Your task to perform on an android device: check storage Image 0: 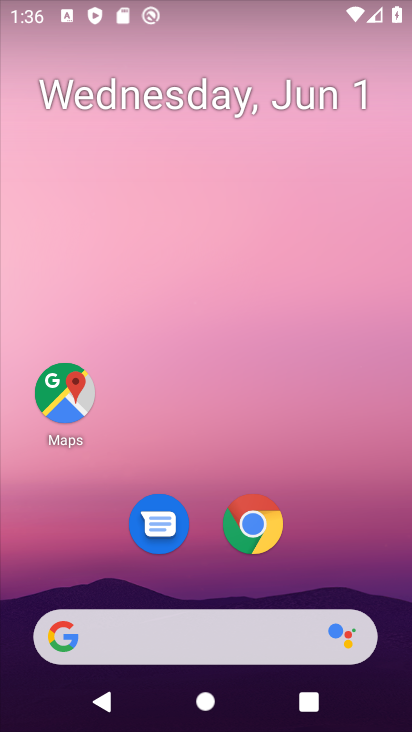
Step 0: drag from (311, 531) to (305, 70)
Your task to perform on an android device: check storage Image 1: 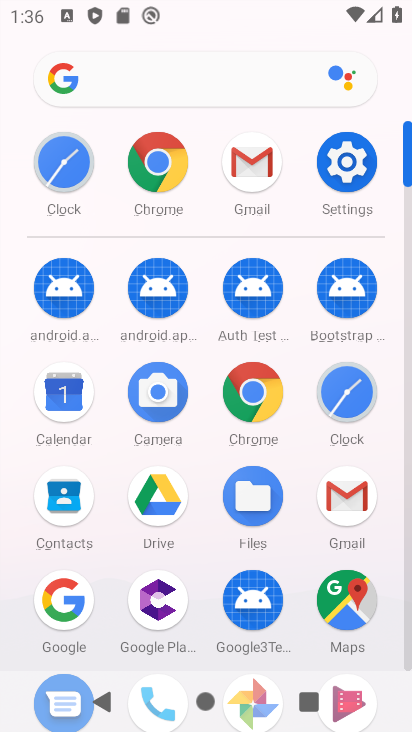
Step 1: click (347, 155)
Your task to perform on an android device: check storage Image 2: 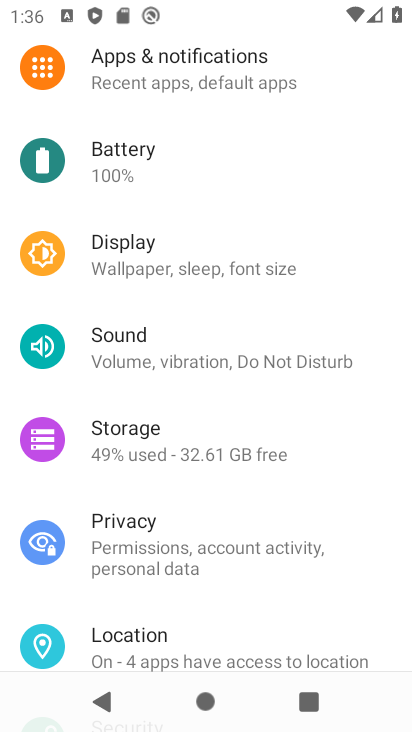
Step 2: click (225, 449)
Your task to perform on an android device: check storage Image 3: 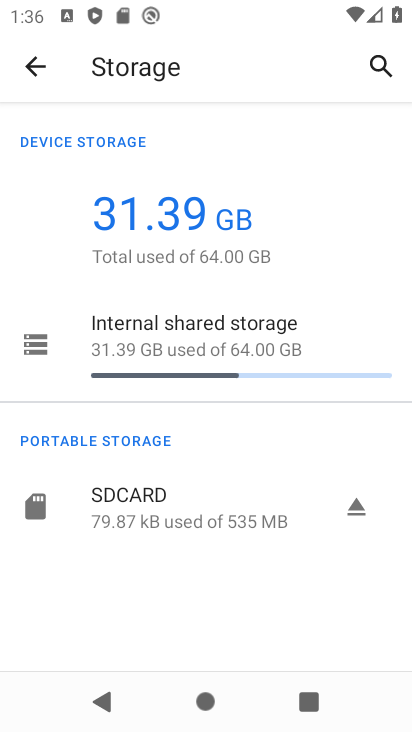
Step 3: task complete